Your task to perform on an android device: Open Wikipedia Image 0: 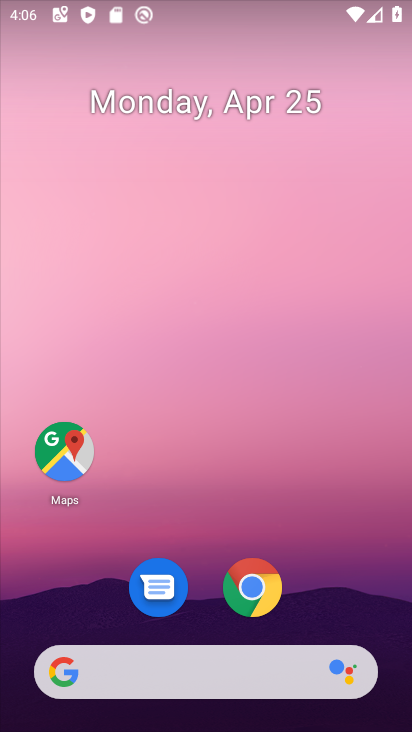
Step 0: click (253, 603)
Your task to perform on an android device: Open Wikipedia Image 1: 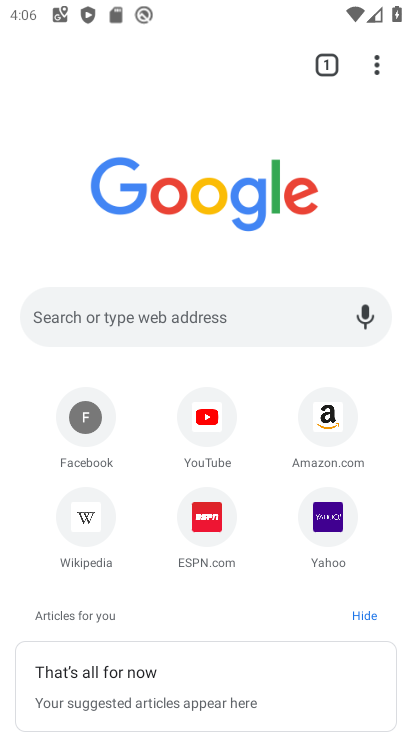
Step 1: click (83, 533)
Your task to perform on an android device: Open Wikipedia Image 2: 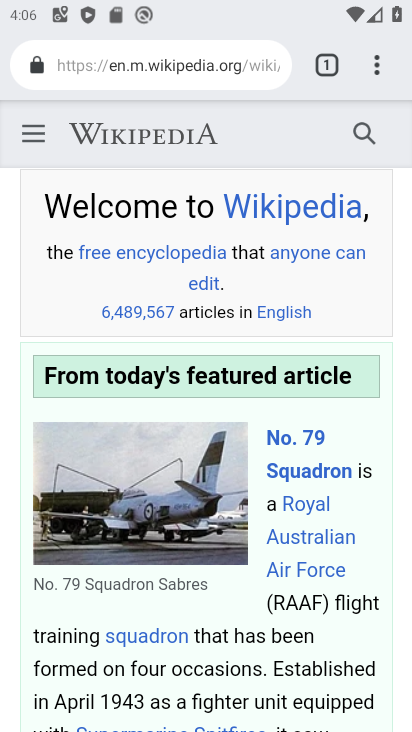
Step 2: task complete